Your task to perform on an android device: Open sound settings Image 0: 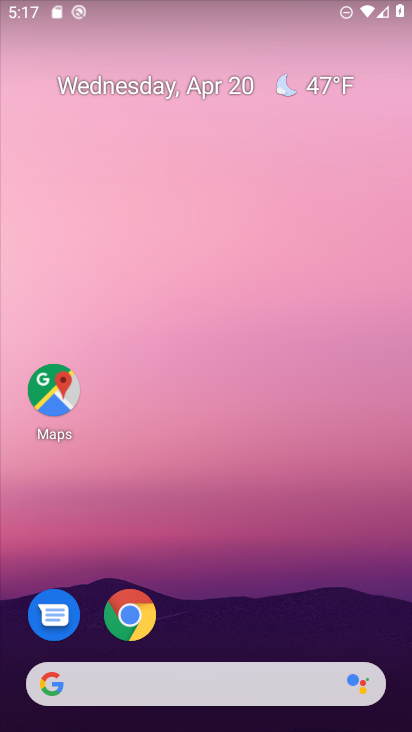
Step 0: drag from (313, 610) to (295, 53)
Your task to perform on an android device: Open sound settings Image 1: 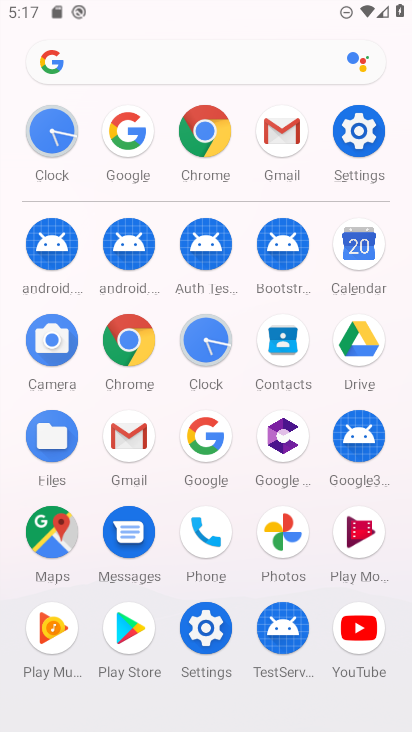
Step 1: click (358, 125)
Your task to perform on an android device: Open sound settings Image 2: 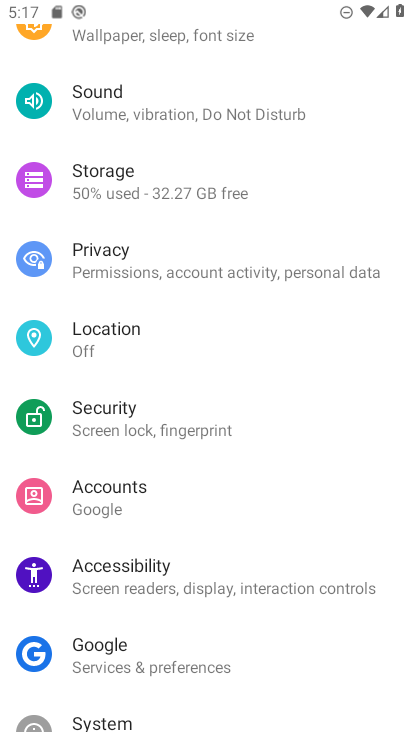
Step 2: click (152, 107)
Your task to perform on an android device: Open sound settings Image 3: 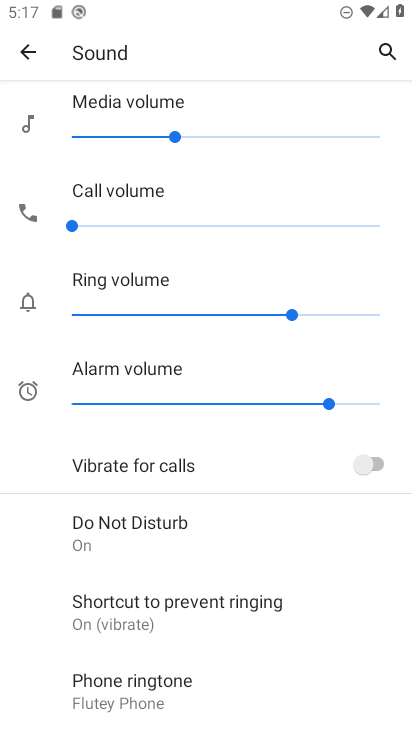
Step 3: task complete